Your task to perform on an android device: check out phone information Image 0: 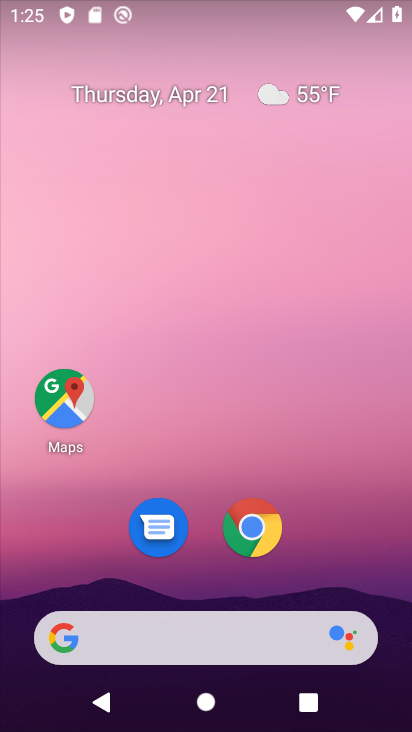
Step 0: drag from (350, 539) to (363, 89)
Your task to perform on an android device: check out phone information Image 1: 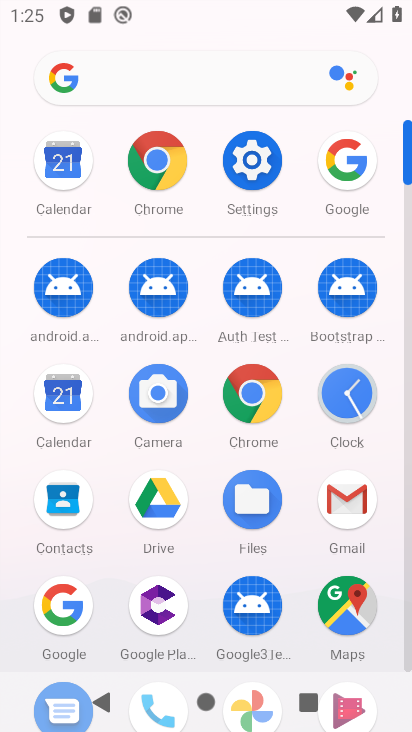
Step 1: drag from (205, 606) to (200, 180)
Your task to perform on an android device: check out phone information Image 2: 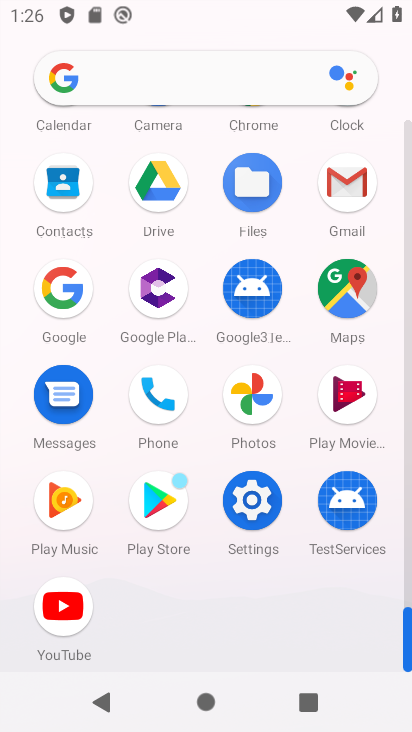
Step 2: click (160, 407)
Your task to perform on an android device: check out phone information Image 3: 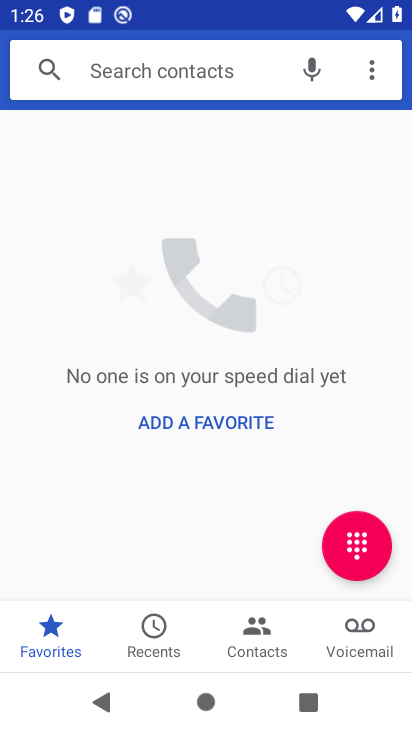
Step 3: click (158, 636)
Your task to perform on an android device: check out phone information Image 4: 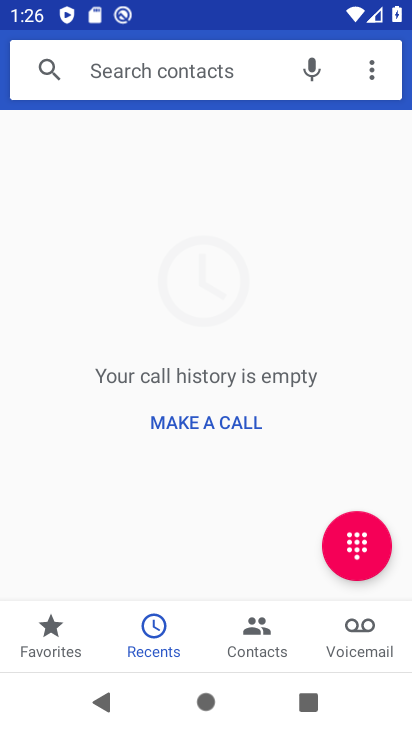
Step 4: task complete